Your task to perform on an android device: Go to privacy settings Image 0: 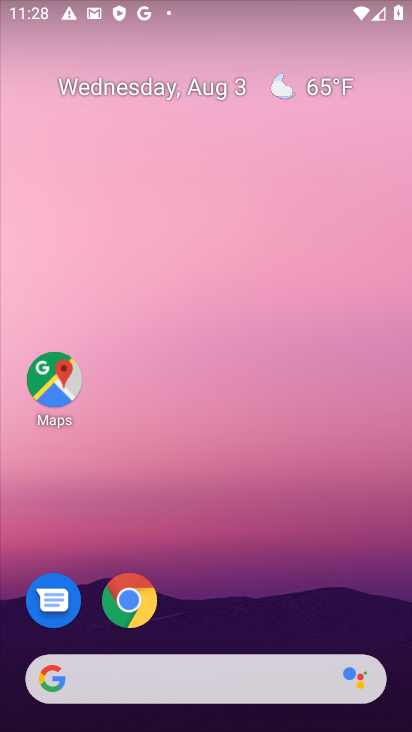
Step 0: drag from (259, 622) to (231, 184)
Your task to perform on an android device: Go to privacy settings Image 1: 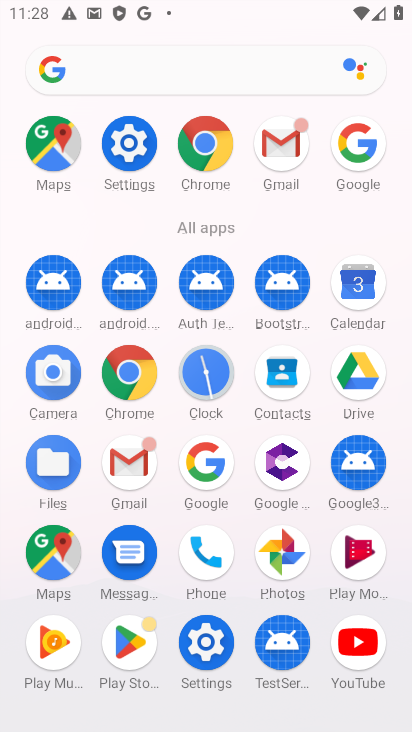
Step 1: click (138, 188)
Your task to perform on an android device: Go to privacy settings Image 2: 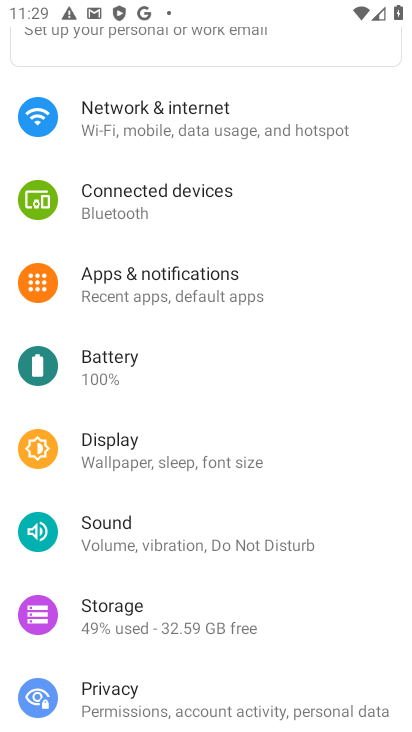
Step 2: click (105, 686)
Your task to perform on an android device: Go to privacy settings Image 3: 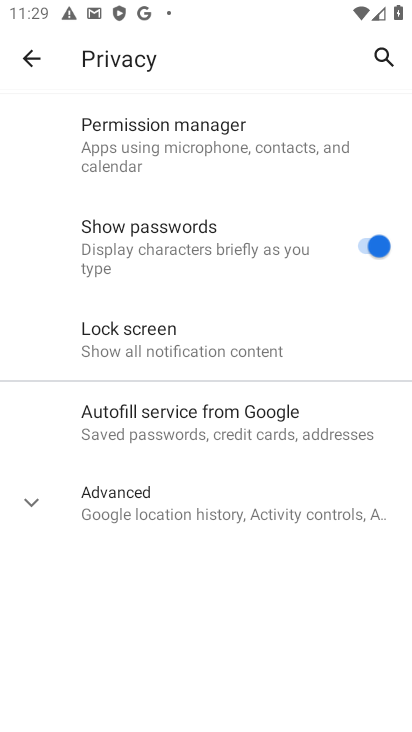
Step 3: click (86, 496)
Your task to perform on an android device: Go to privacy settings Image 4: 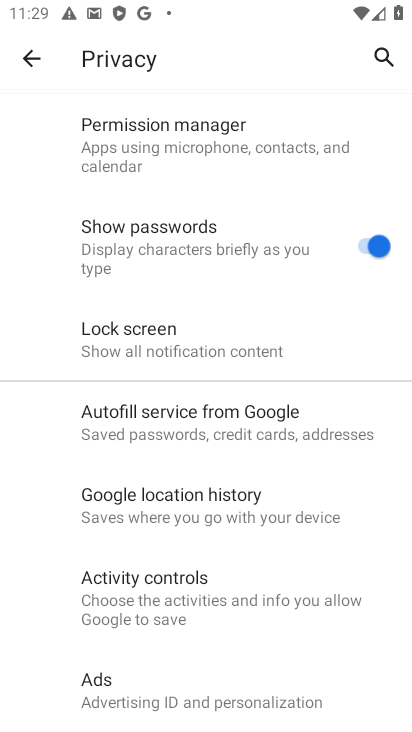
Step 4: task complete